Your task to perform on an android device: toggle translation in the chrome app Image 0: 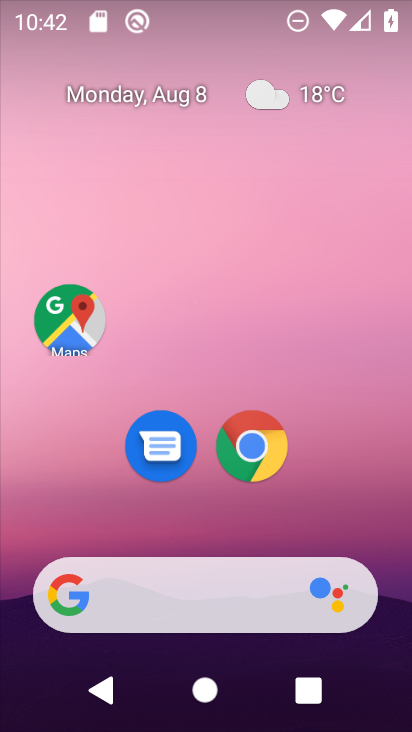
Step 0: click (255, 442)
Your task to perform on an android device: toggle translation in the chrome app Image 1: 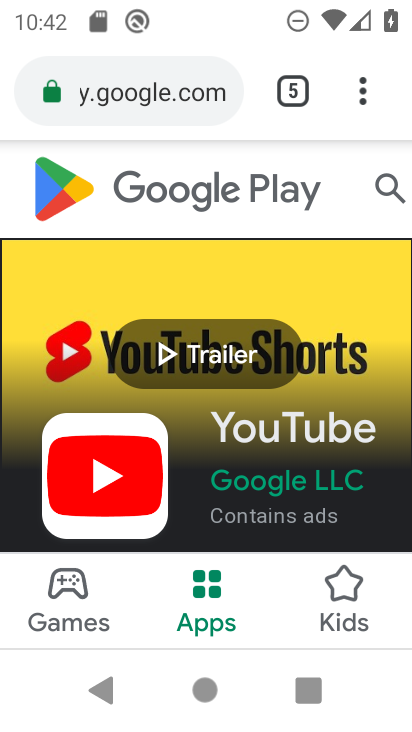
Step 1: click (356, 103)
Your task to perform on an android device: toggle translation in the chrome app Image 2: 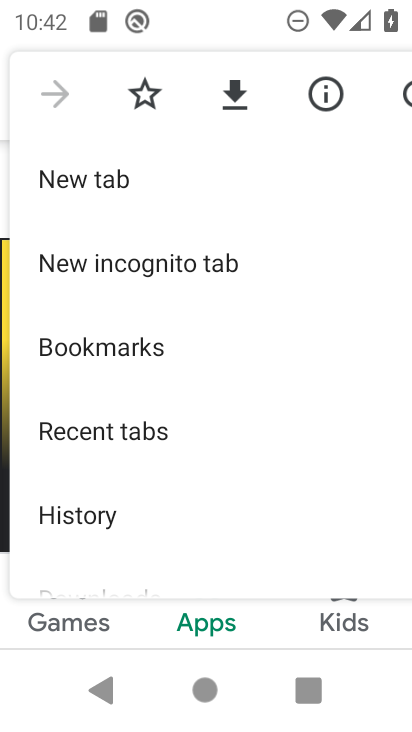
Step 2: drag from (199, 568) to (226, 318)
Your task to perform on an android device: toggle translation in the chrome app Image 3: 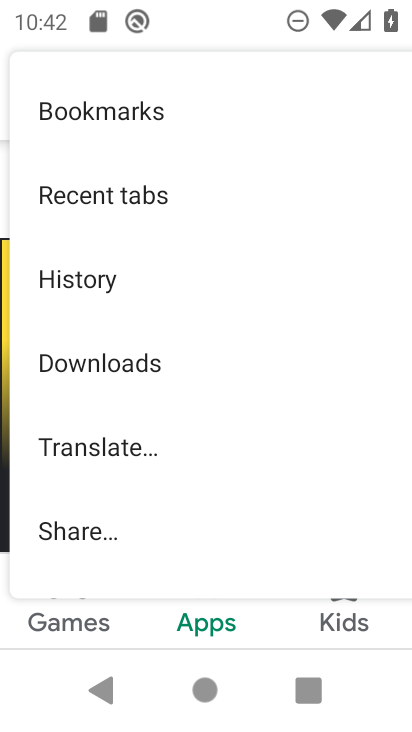
Step 3: drag from (193, 526) to (212, 247)
Your task to perform on an android device: toggle translation in the chrome app Image 4: 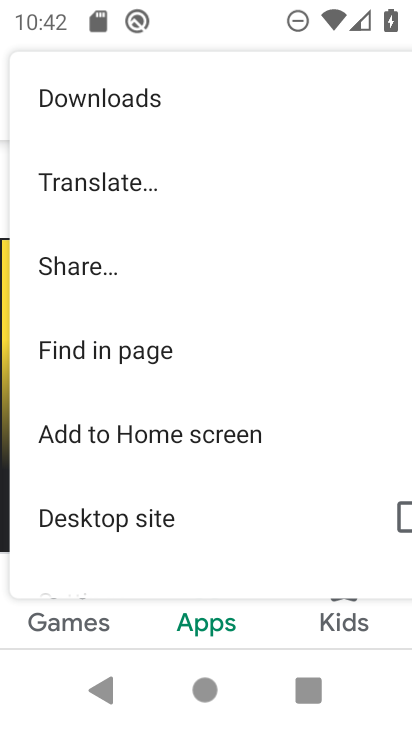
Step 4: drag from (255, 568) to (297, 182)
Your task to perform on an android device: toggle translation in the chrome app Image 5: 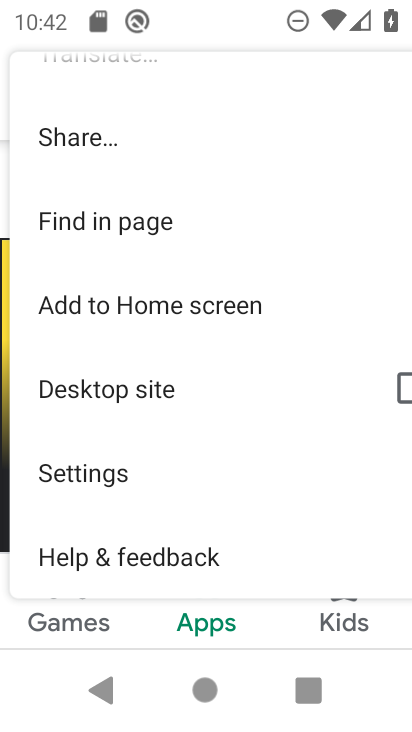
Step 5: click (87, 483)
Your task to perform on an android device: toggle translation in the chrome app Image 6: 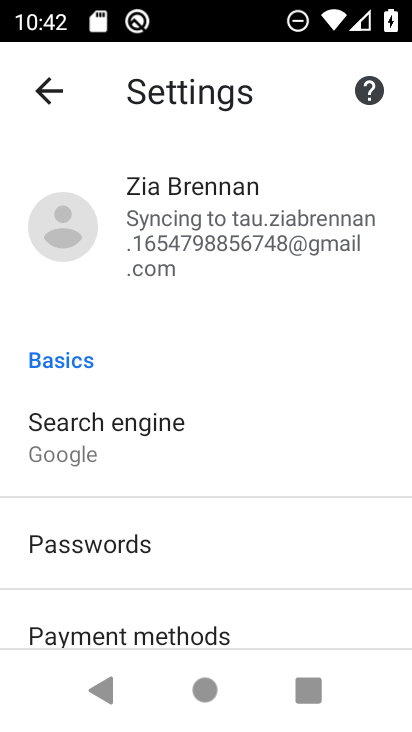
Step 6: drag from (250, 577) to (235, 213)
Your task to perform on an android device: toggle translation in the chrome app Image 7: 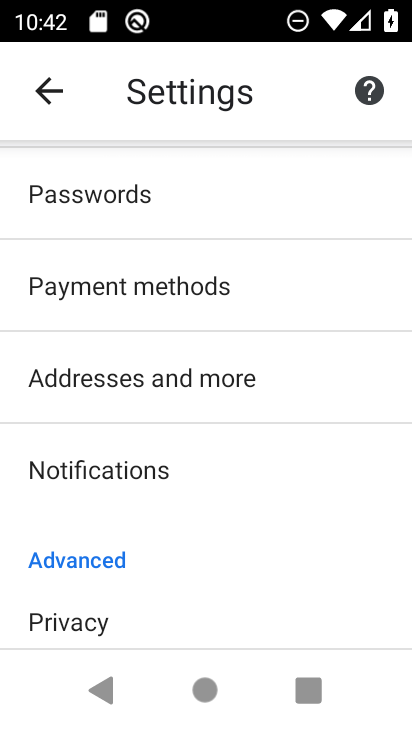
Step 7: drag from (228, 551) to (268, 198)
Your task to perform on an android device: toggle translation in the chrome app Image 8: 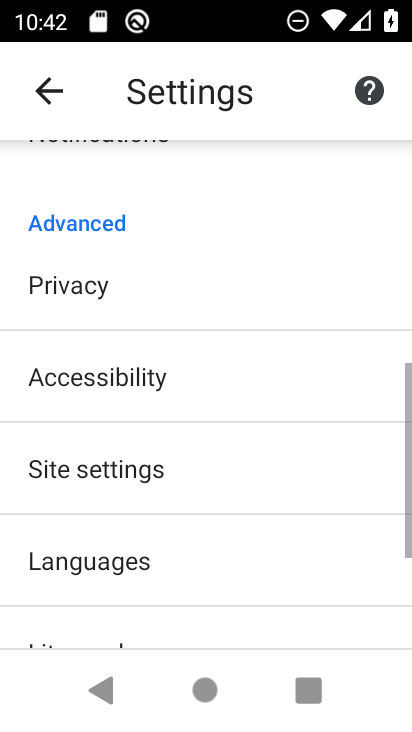
Step 8: click (268, 198)
Your task to perform on an android device: toggle translation in the chrome app Image 9: 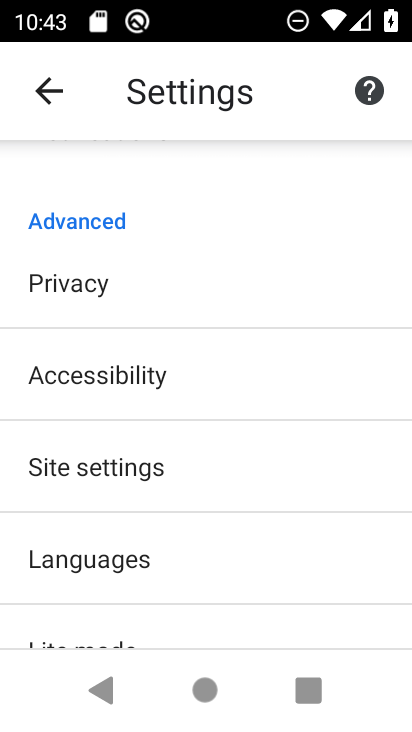
Step 9: click (77, 575)
Your task to perform on an android device: toggle translation in the chrome app Image 10: 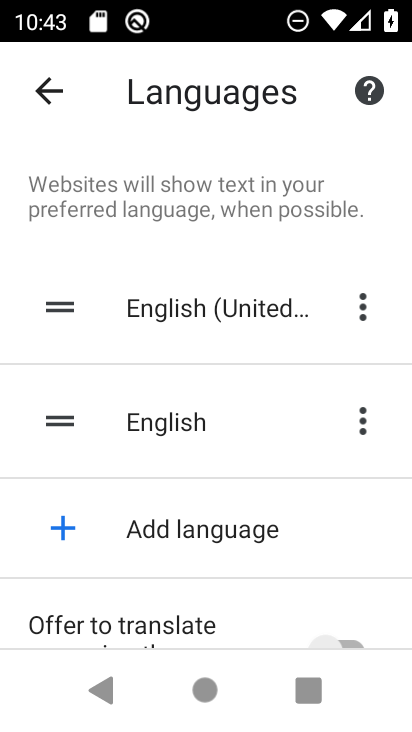
Step 10: drag from (266, 601) to (282, 328)
Your task to perform on an android device: toggle translation in the chrome app Image 11: 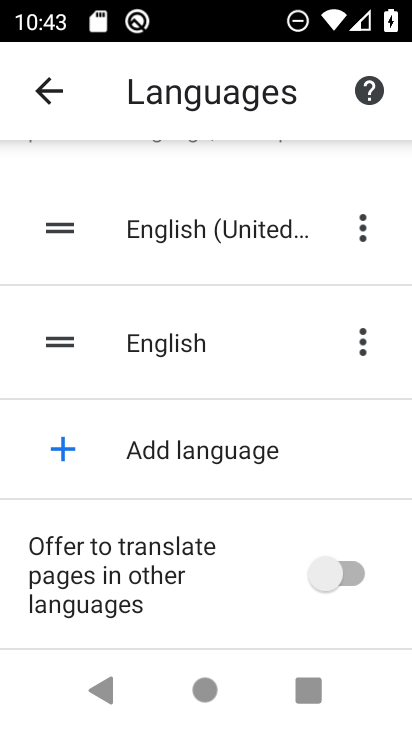
Step 11: click (359, 572)
Your task to perform on an android device: toggle translation in the chrome app Image 12: 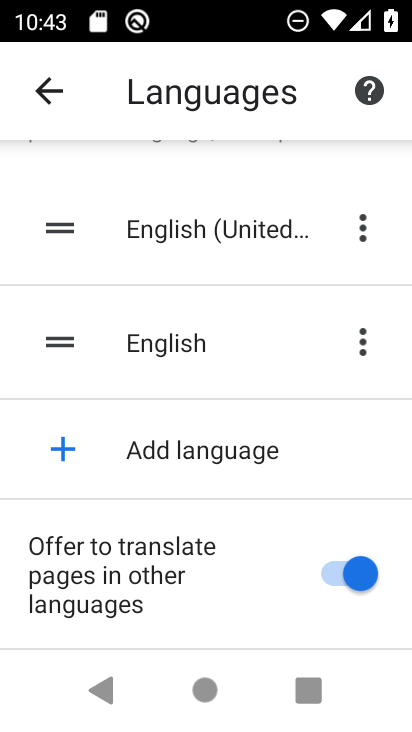
Step 12: task complete